Your task to perform on an android device: change the clock display to digital Image 0: 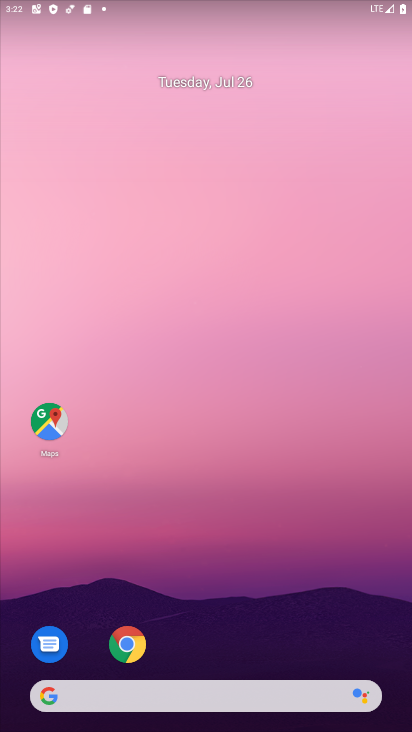
Step 0: drag from (194, 699) to (181, 234)
Your task to perform on an android device: change the clock display to digital Image 1: 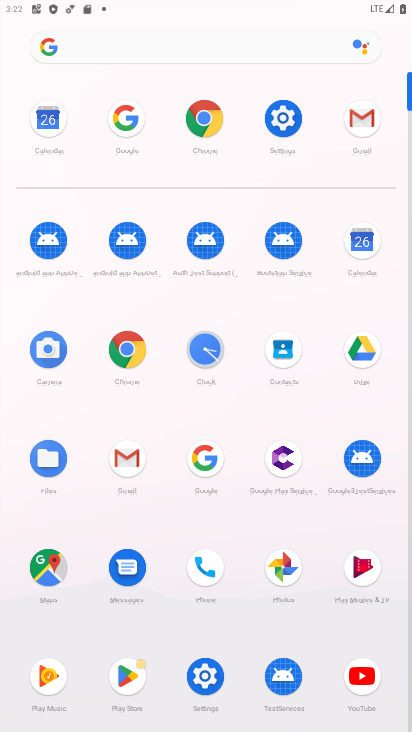
Step 1: click (203, 351)
Your task to perform on an android device: change the clock display to digital Image 2: 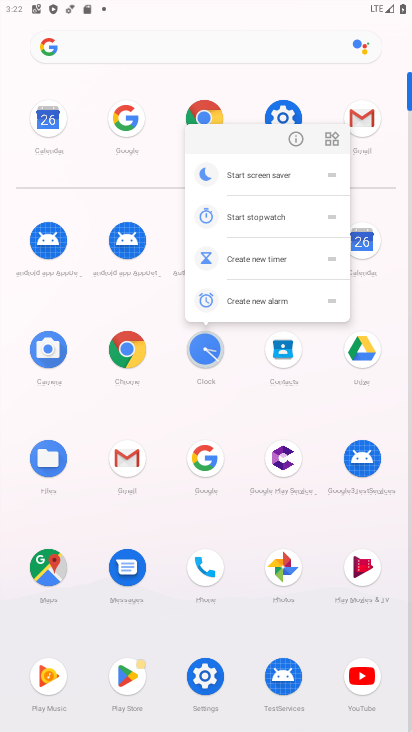
Step 2: click (203, 351)
Your task to perform on an android device: change the clock display to digital Image 3: 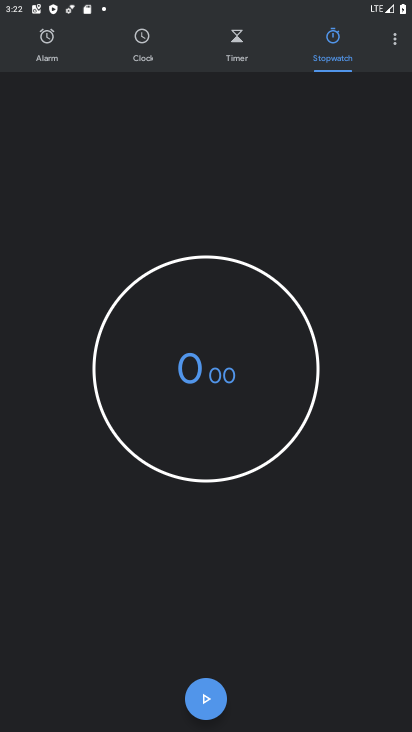
Step 3: click (390, 45)
Your task to perform on an android device: change the clock display to digital Image 4: 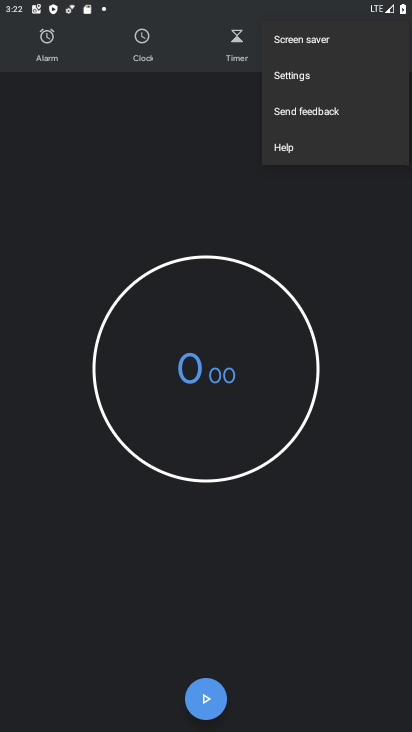
Step 4: click (278, 74)
Your task to perform on an android device: change the clock display to digital Image 5: 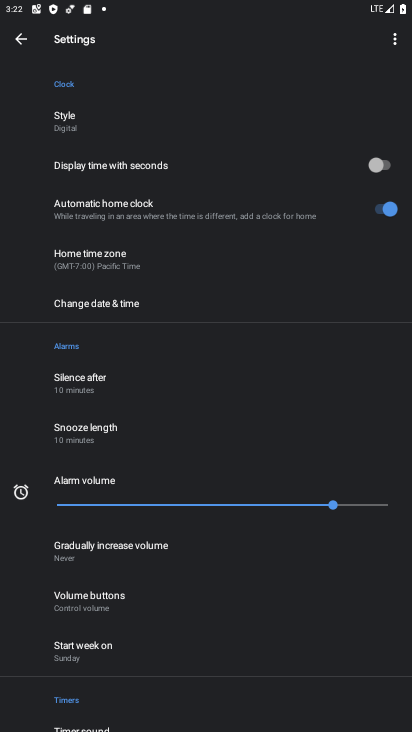
Step 5: task complete